Your task to perform on an android device: move an email to a new category in the gmail app Image 0: 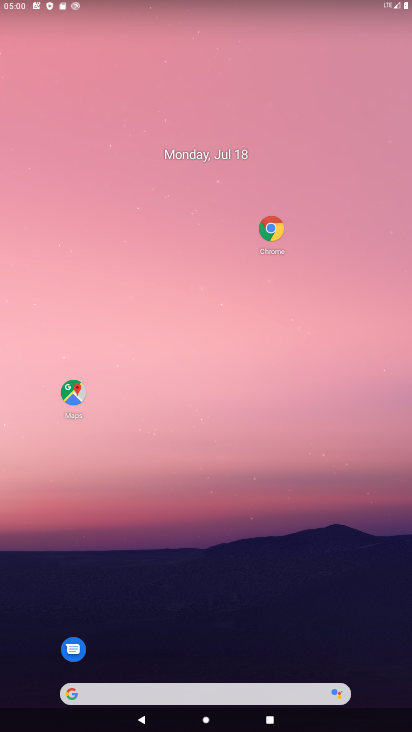
Step 0: drag from (165, 590) to (114, 228)
Your task to perform on an android device: move an email to a new category in the gmail app Image 1: 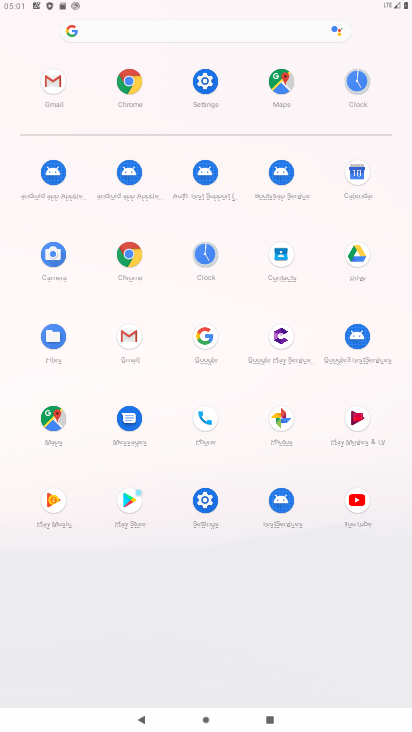
Step 1: click (49, 92)
Your task to perform on an android device: move an email to a new category in the gmail app Image 2: 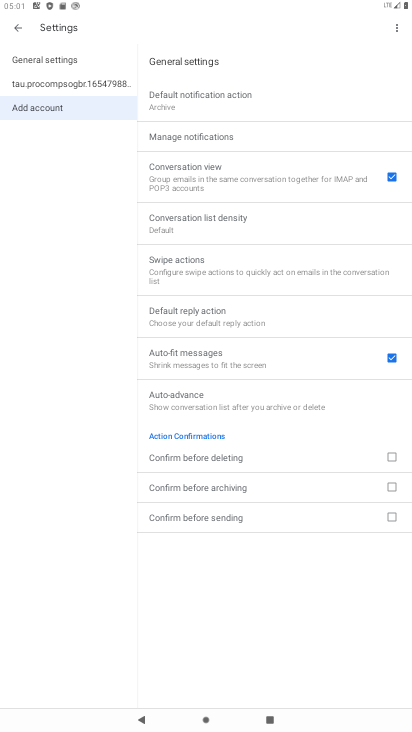
Step 2: click (23, 24)
Your task to perform on an android device: move an email to a new category in the gmail app Image 3: 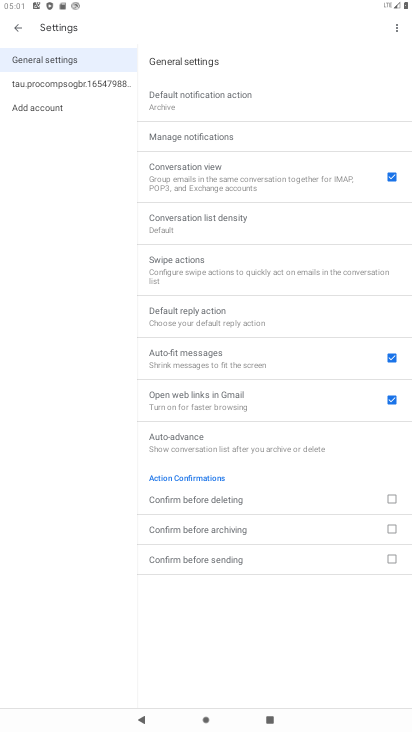
Step 3: click (15, 29)
Your task to perform on an android device: move an email to a new category in the gmail app Image 4: 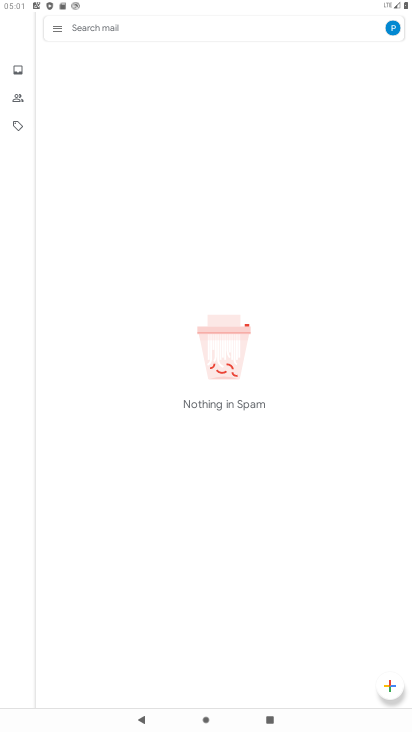
Step 4: task complete